Your task to perform on an android device: Clear all items from cart on bestbuy.com. Search for "usb-c to usb-a" on bestbuy.com, select the first entry, and add it to the cart. Image 0: 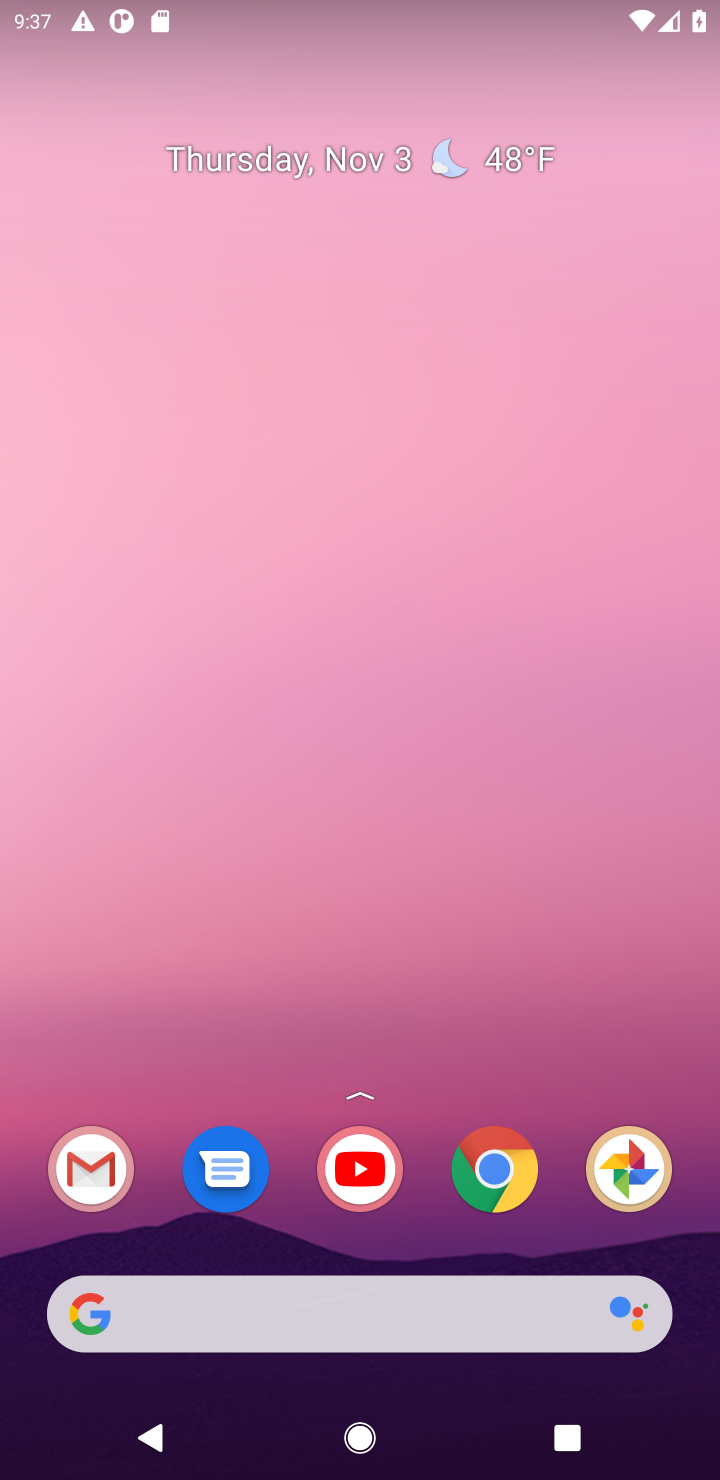
Step 0: drag from (452, 1195) to (655, 325)
Your task to perform on an android device: Clear all items from cart on bestbuy.com. Search for "usb-c to usb-a" on bestbuy.com, select the first entry, and add it to the cart. Image 1: 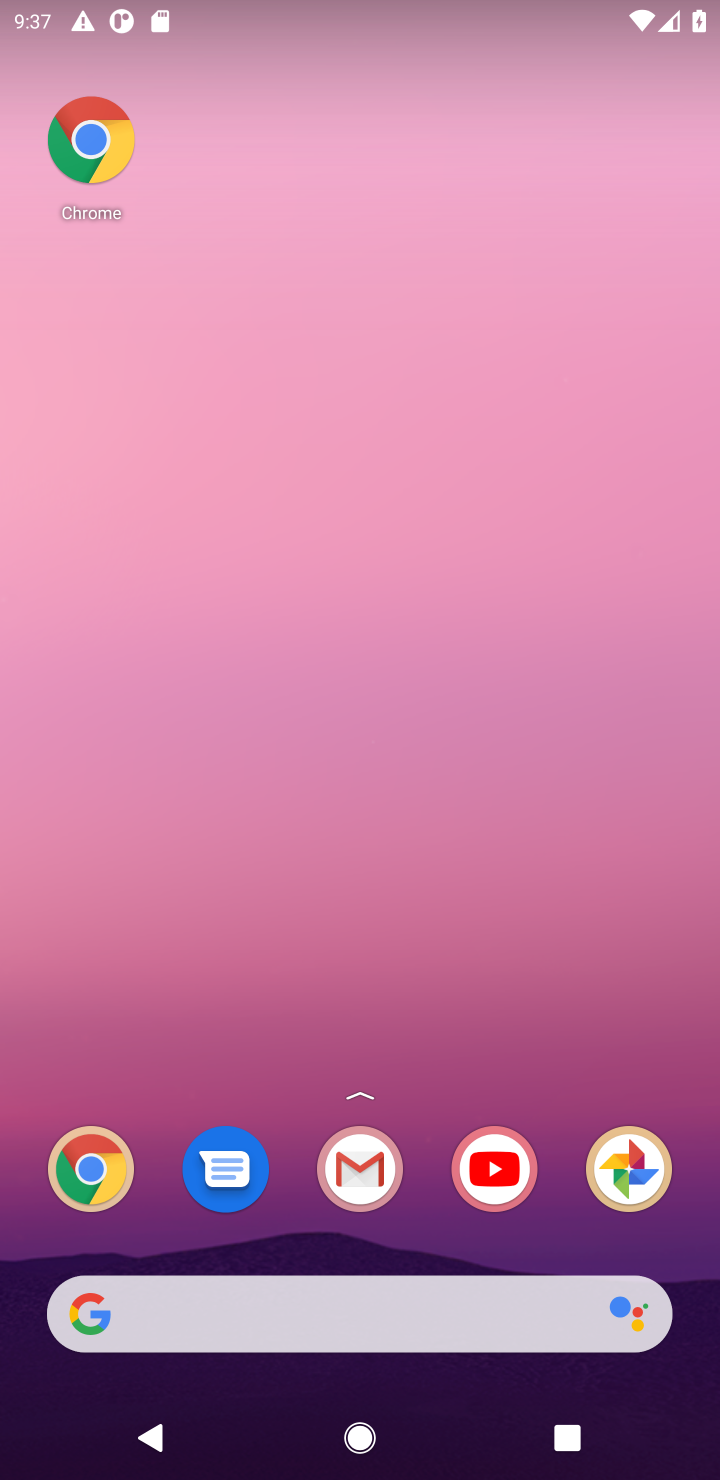
Step 1: drag from (434, 1259) to (552, 225)
Your task to perform on an android device: Clear all items from cart on bestbuy.com. Search for "usb-c to usb-a" on bestbuy.com, select the first entry, and add it to the cart. Image 2: 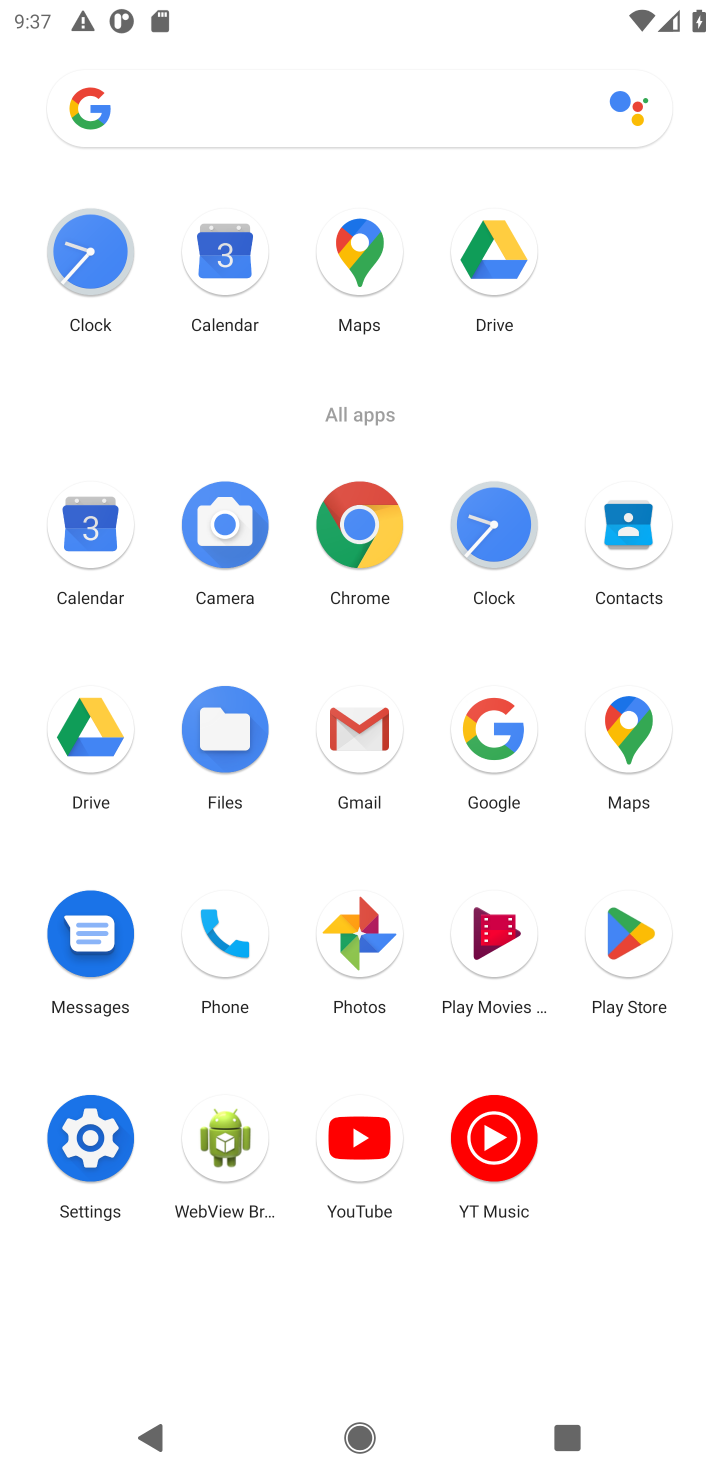
Step 2: click (357, 525)
Your task to perform on an android device: Clear all items from cart on bestbuy.com. Search for "usb-c to usb-a" on bestbuy.com, select the first entry, and add it to the cart. Image 3: 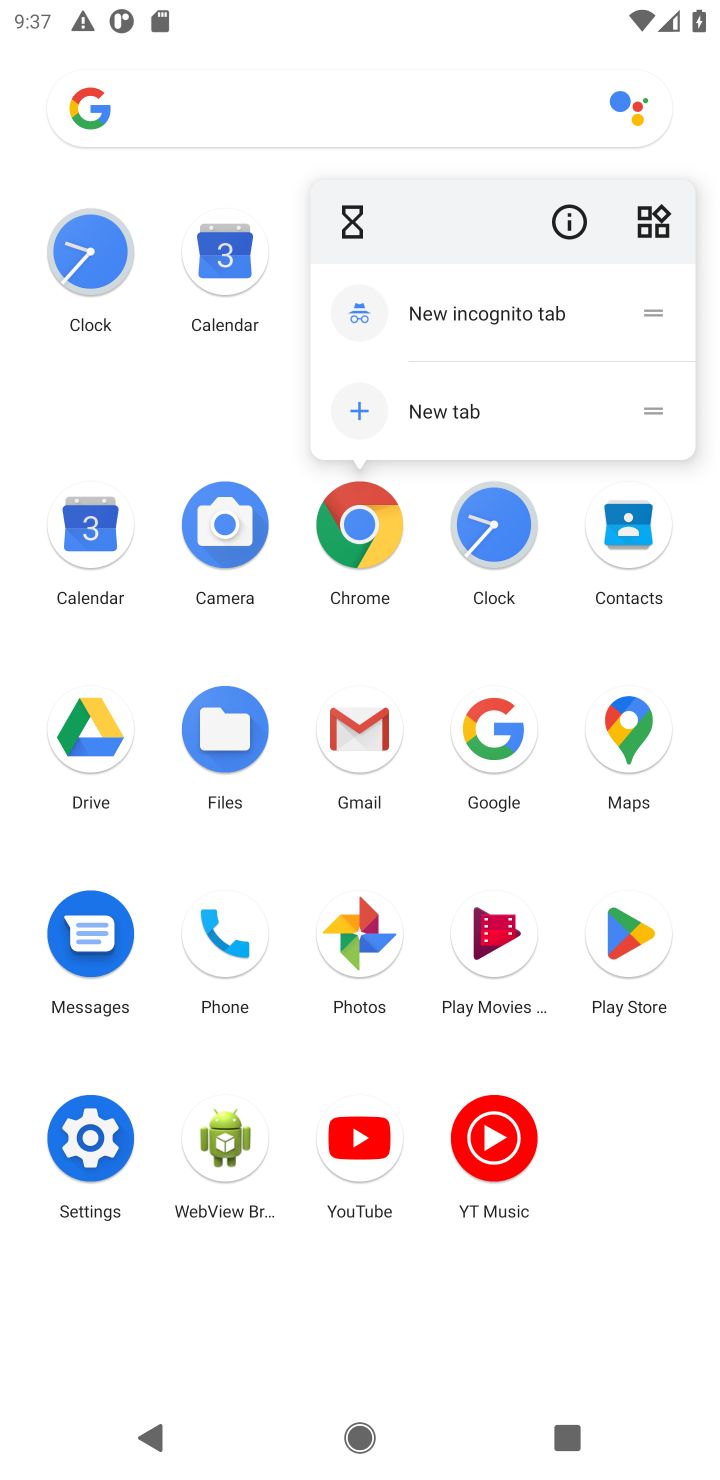
Step 3: click (357, 528)
Your task to perform on an android device: Clear all items from cart on bestbuy.com. Search for "usb-c to usb-a" on bestbuy.com, select the first entry, and add it to the cart. Image 4: 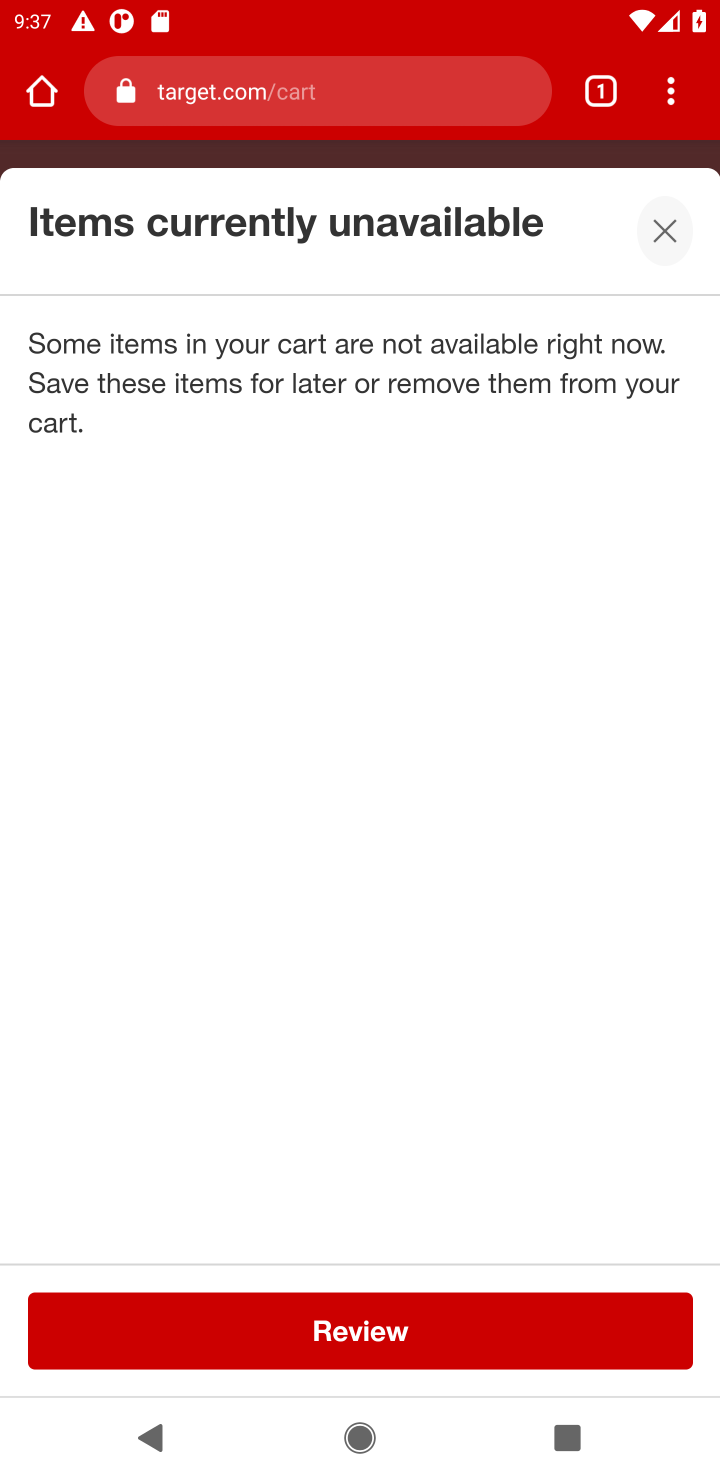
Step 4: click (350, 85)
Your task to perform on an android device: Clear all items from cart on bestbuy.com. Search for "usb-c to usb-a" on bestbuy.com, select the first entry, and add it to the cart. Image 5: 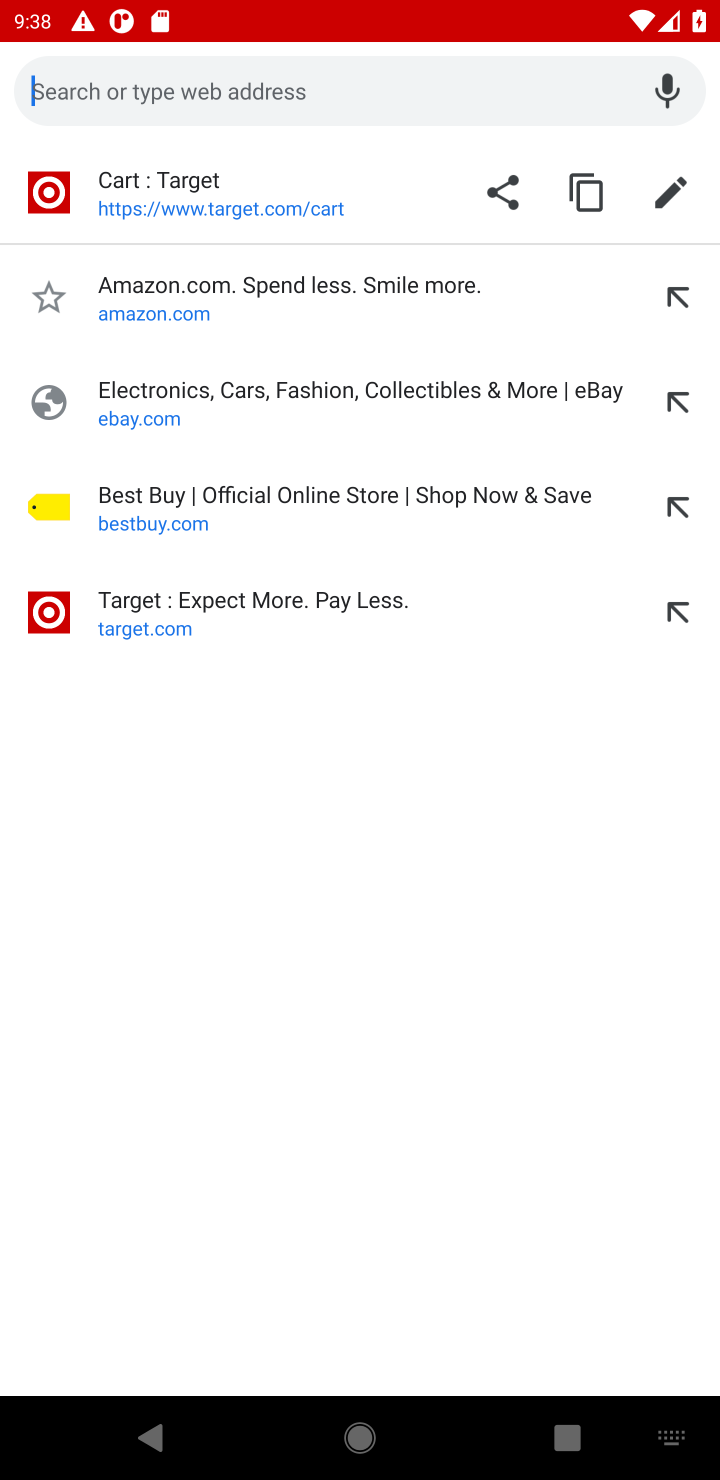
Step 5: type "bestbuy.com"
Your task to perform on an android device: Clear all items from cart on bestbuy.com. Search for "usb-c to usb-a" on bestbuy.com, select the first entry, and add it to the cart. Image 6: 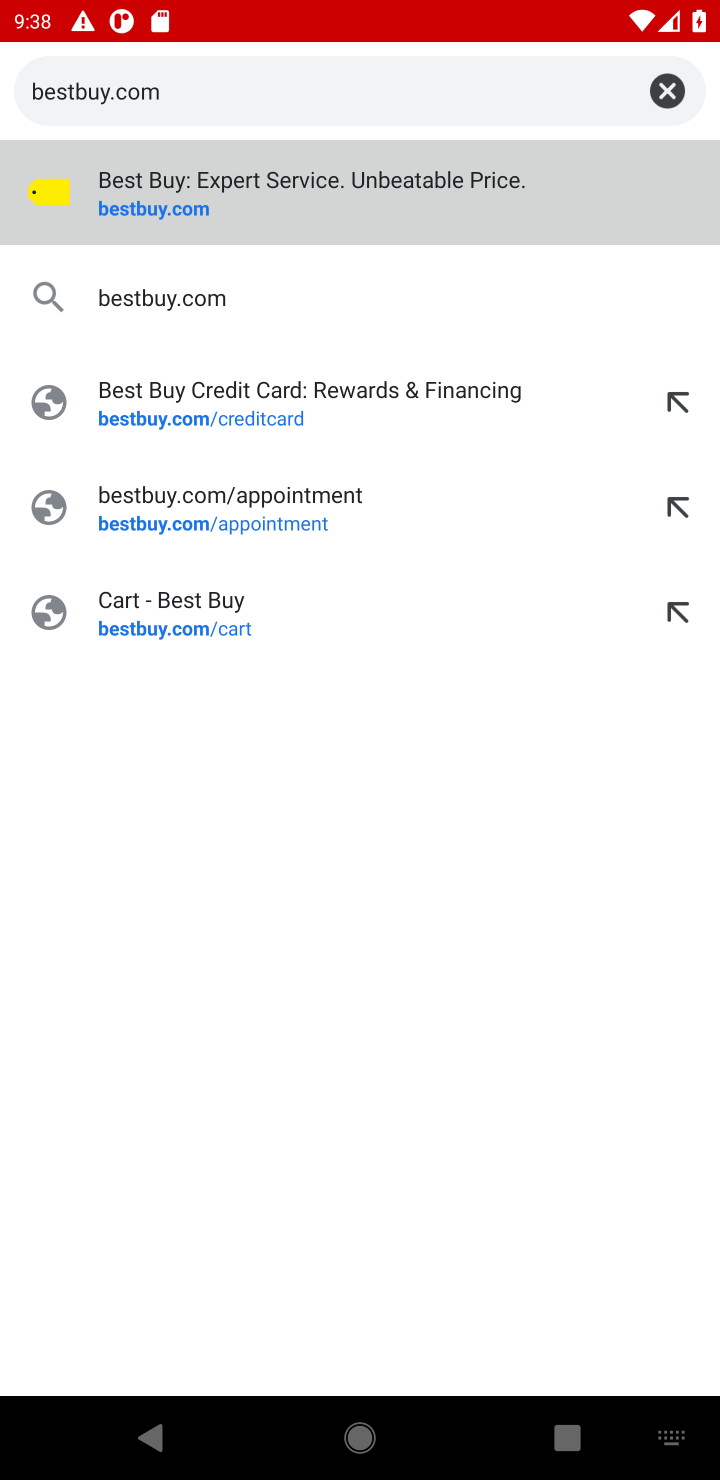
Step 6: press enter
Your task to perform on an android device: Clear all items from cart on bestbuy.com. Search for "usb-c to usb-a" on bestbuy.com, select the first entry, and add it to the cart. Image 7: 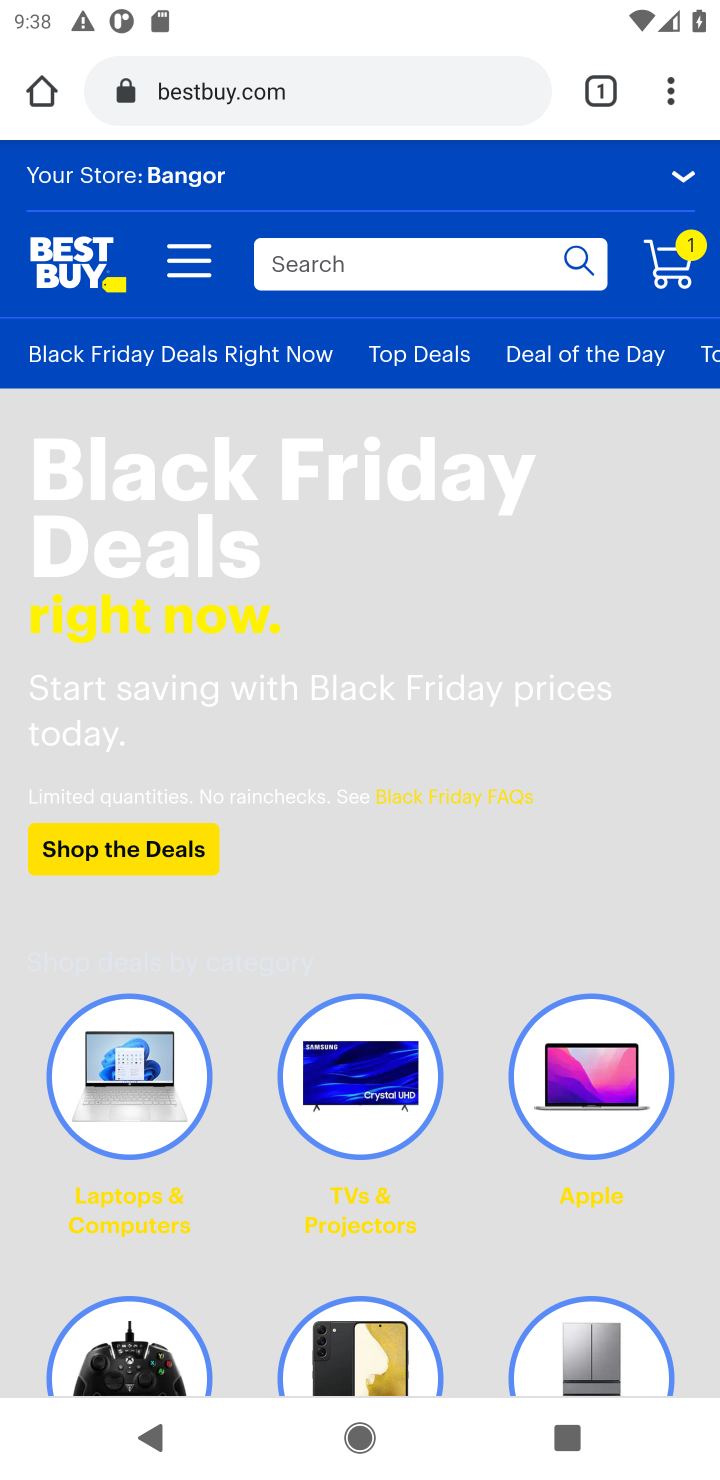
Step 7: click (696, 253)
Your task to perform on an android device: Clear all items from cart on bestbuy.com. Search for "usb-c to usb-a" on bestbuy.com, select the first entry, and add it to the cart. Image 8: 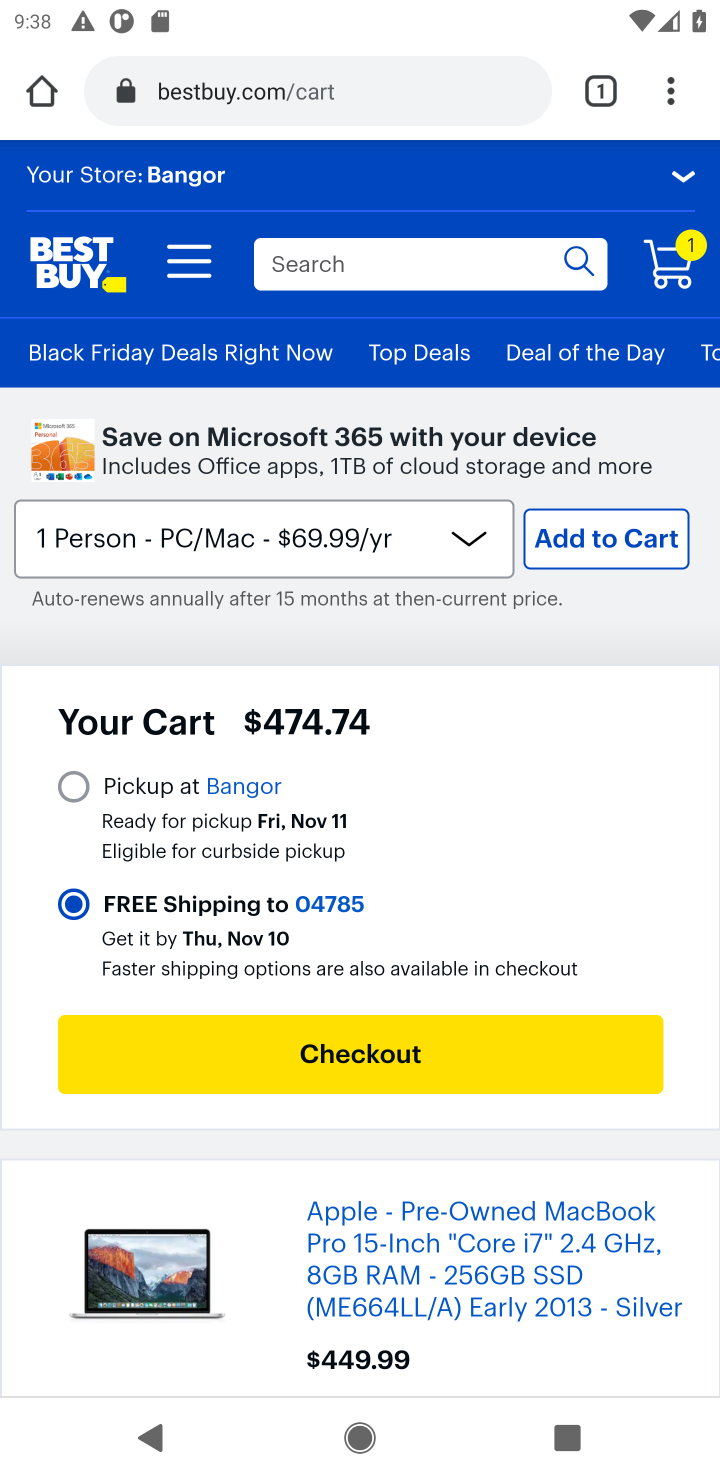
Step 8: drag from (466, 1263) to (384, 615)
Your task to perform on an android device: Clear all items from cart on bestbuy.com. Search for "usb-c to usb-a" on bestbuy.com, select the first entry, and add it to the cart. Image 9: 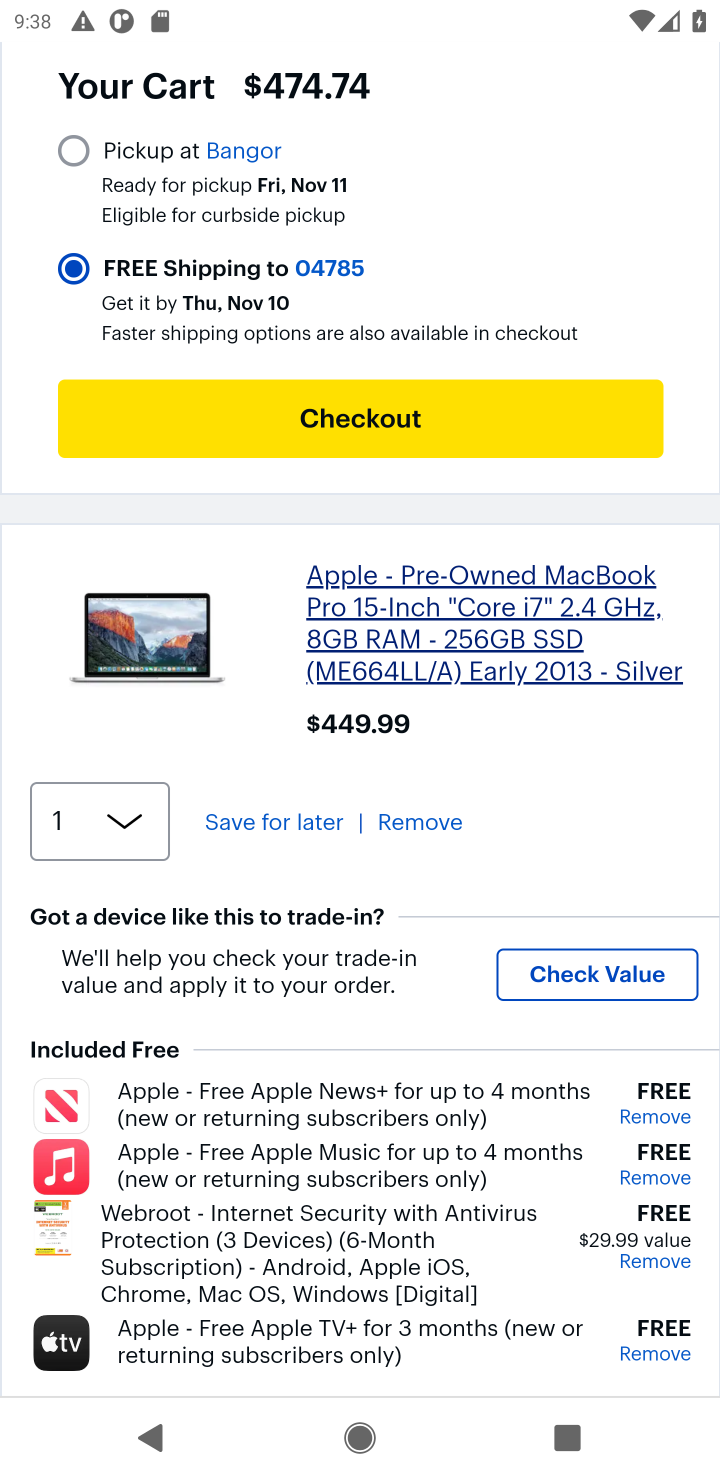
Step 9: click (390, 816)
Your task to perform on an android device: Clear all items from cart on bestbuy.com. Search for "usb-c to usb-a" on bestbuy.com, select the first entry, and add it to the cart. Image 10: 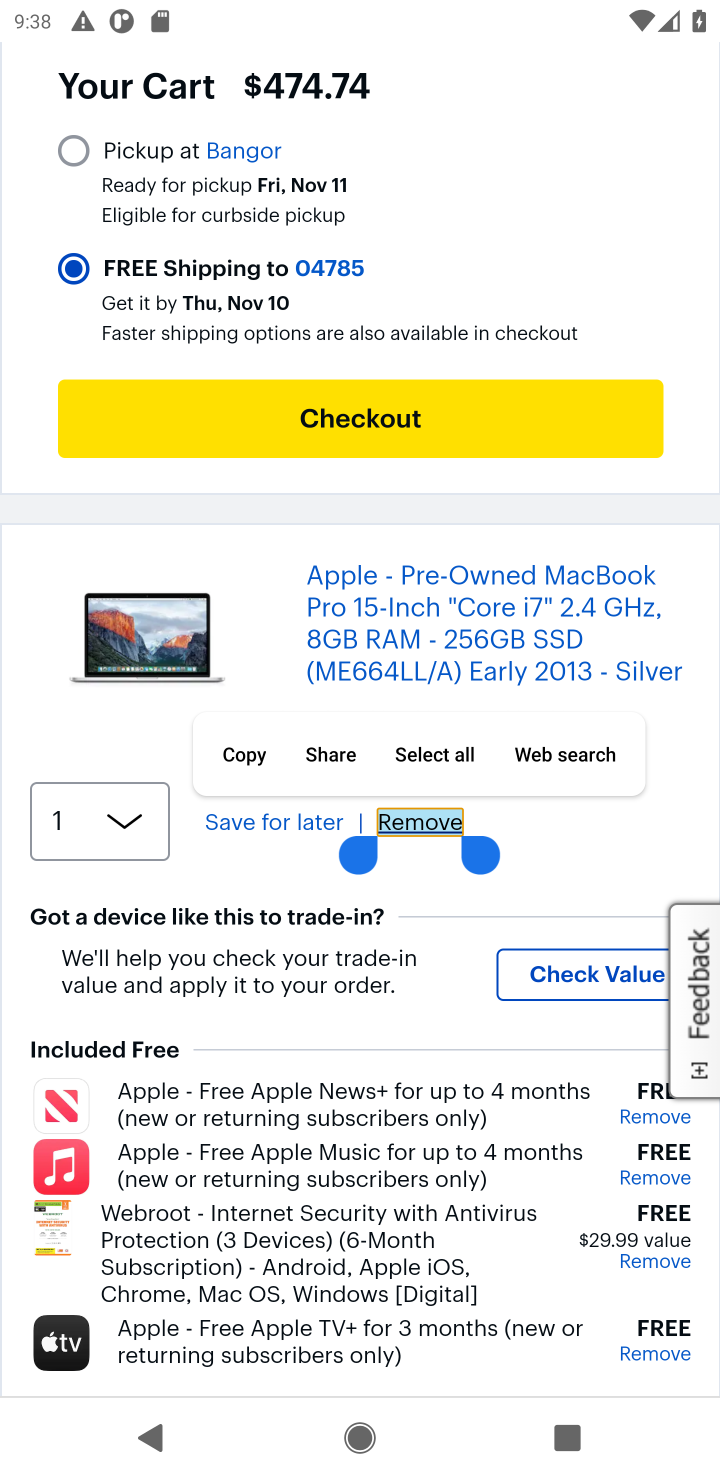
Step 10: click (419, 822)
Your task to perform on an android device: Clear all items from cart on bestbuy.com. Search for "usb-c to usb-a" on bestbuy.com, select the first entry, and add it to the cart. Image 11: 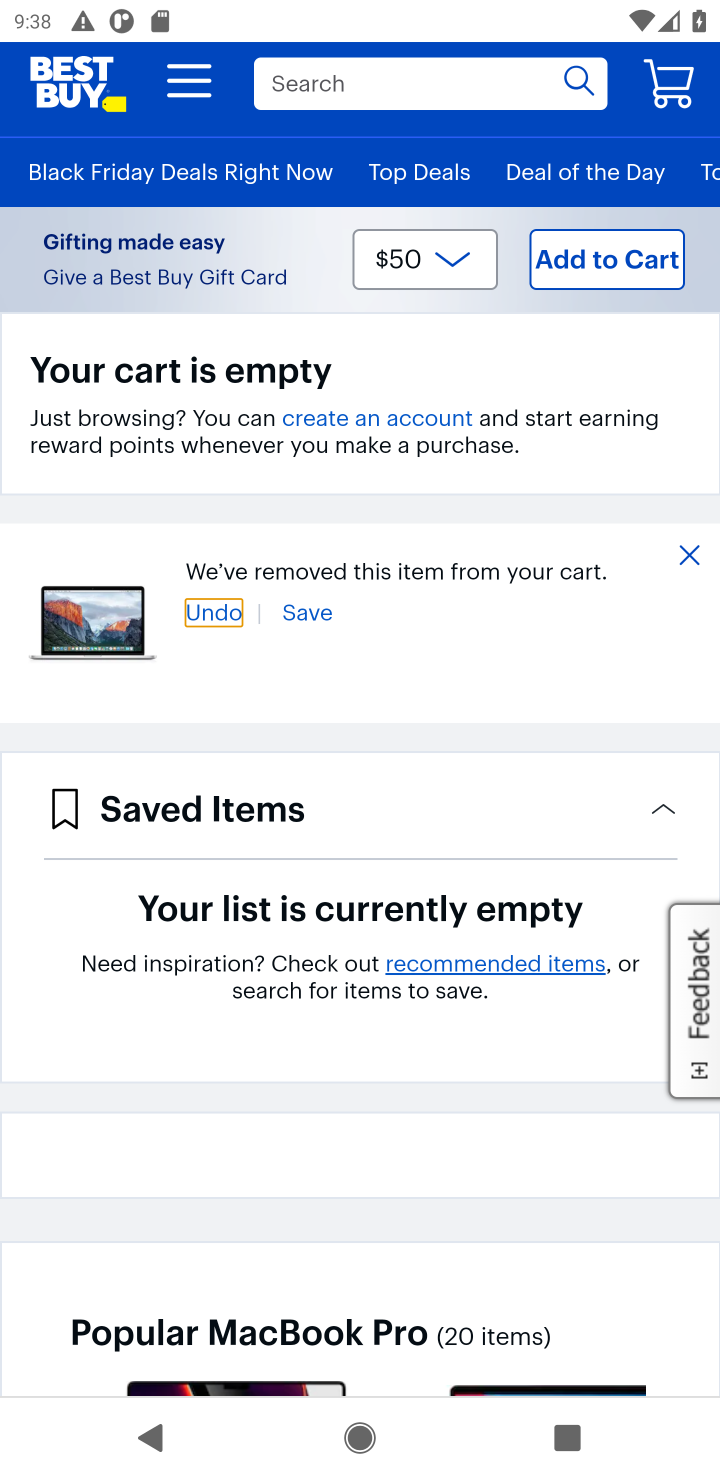
Step 11: click (400, 84)
Your task to perform on an android device: Clear all items from cart on bestbuy.com. Search for "usb-c to usb-a" on bestbuy.com, select the first entry, and add it to the cart. Image 12: 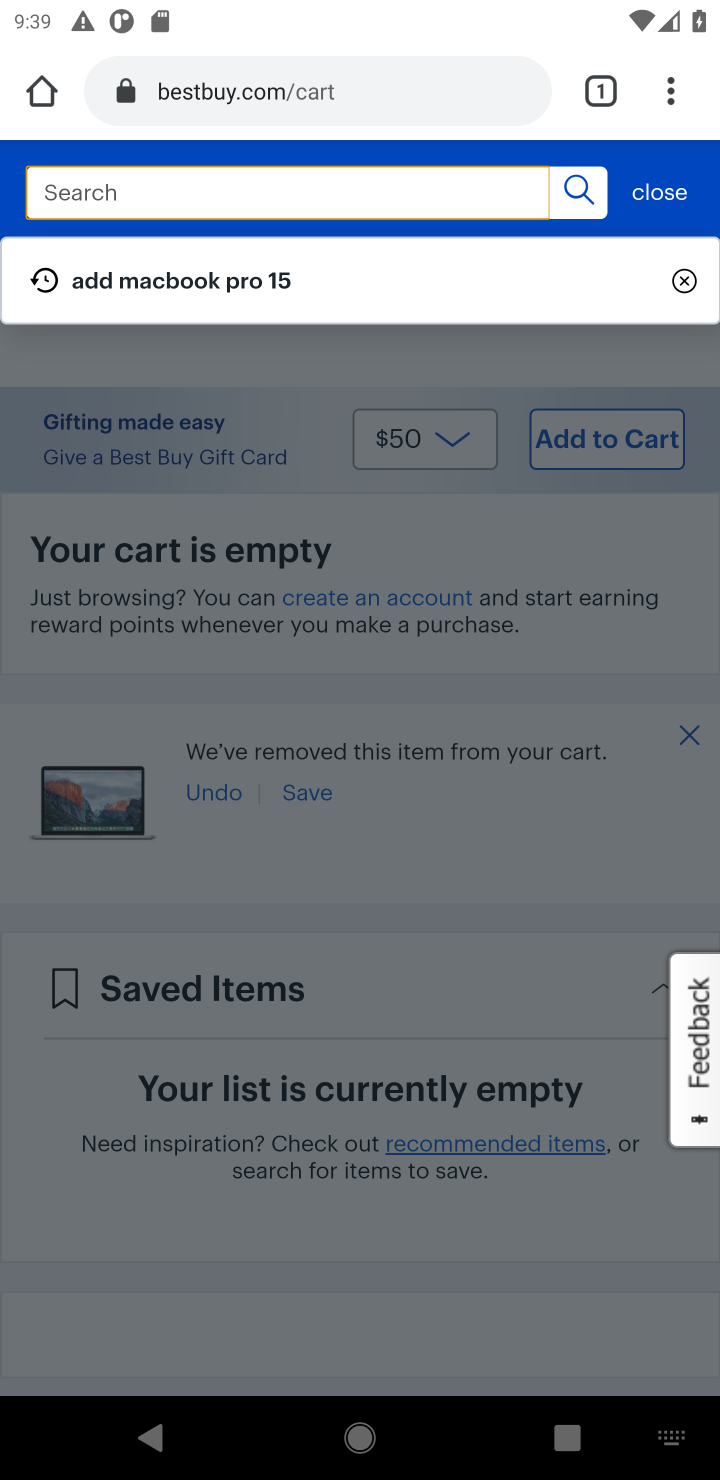
Step 12: type "usb-c to usb-a"
Your task to perform on an android device: Clear all items from cart on bestbuy.com. Search for "usb-c to usb-a" on bestbuy.com, select the first entry, and add it to the cart. Image 13: 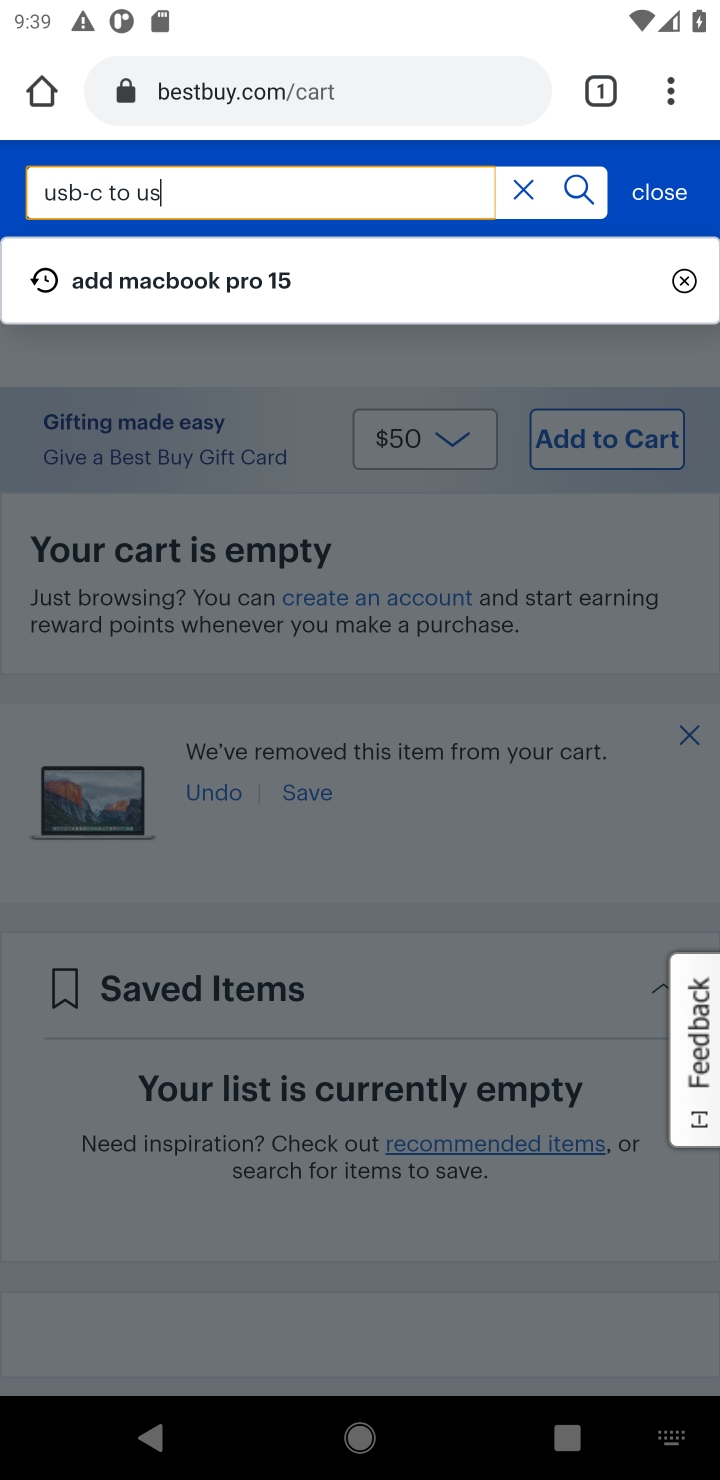
Step 13: press enter
Your task to perform on an android device: Clear all items from cart on bestbuy.com. Search for "usb-c to usb-a" on bestbuy.com, select the first entry, and add it to the cart. Image 14: 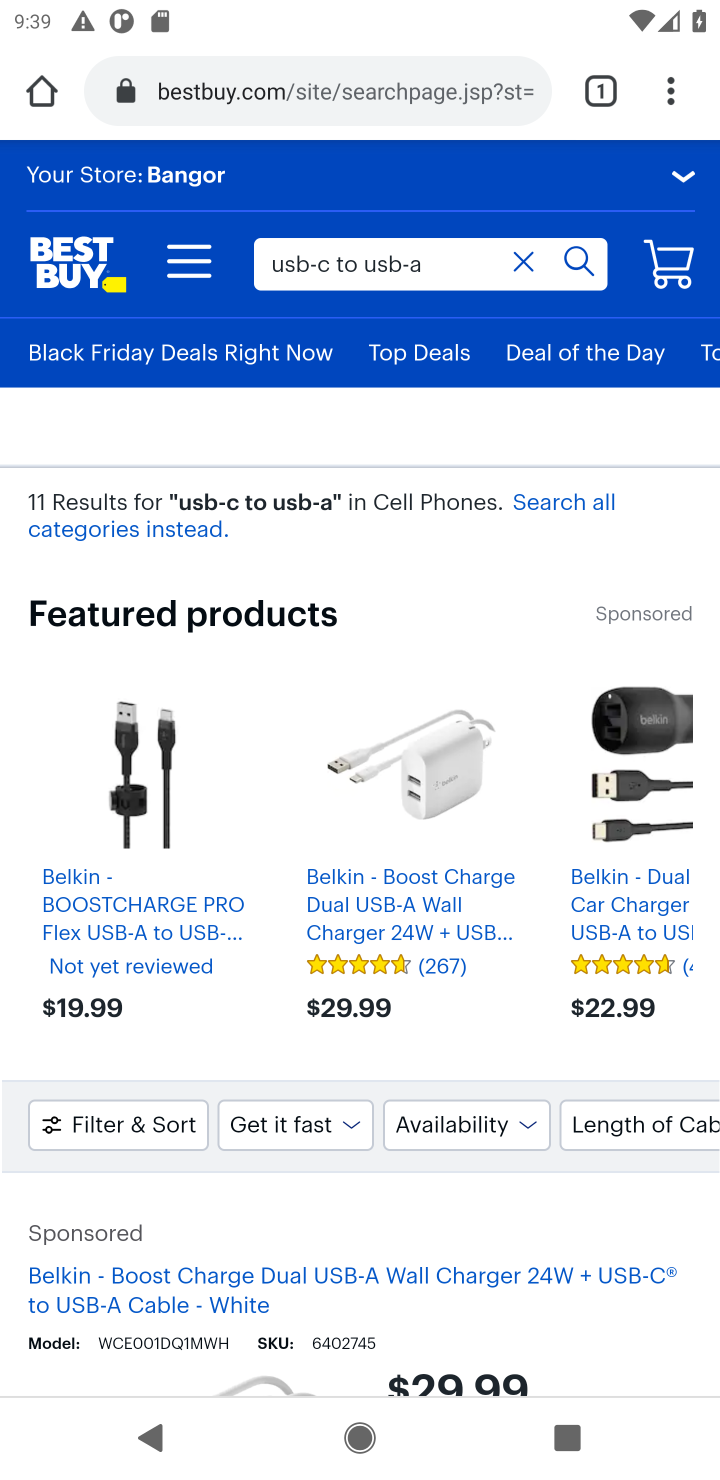
Step 14: drag from (421, 1122) to (368, 561)
Your task to perform on an android device: Clear all items from cart on bestbuy.com. Search for "usb-c to usb-a" on bestbuy.com, select the first entry, and add it to the cart. Image 15: 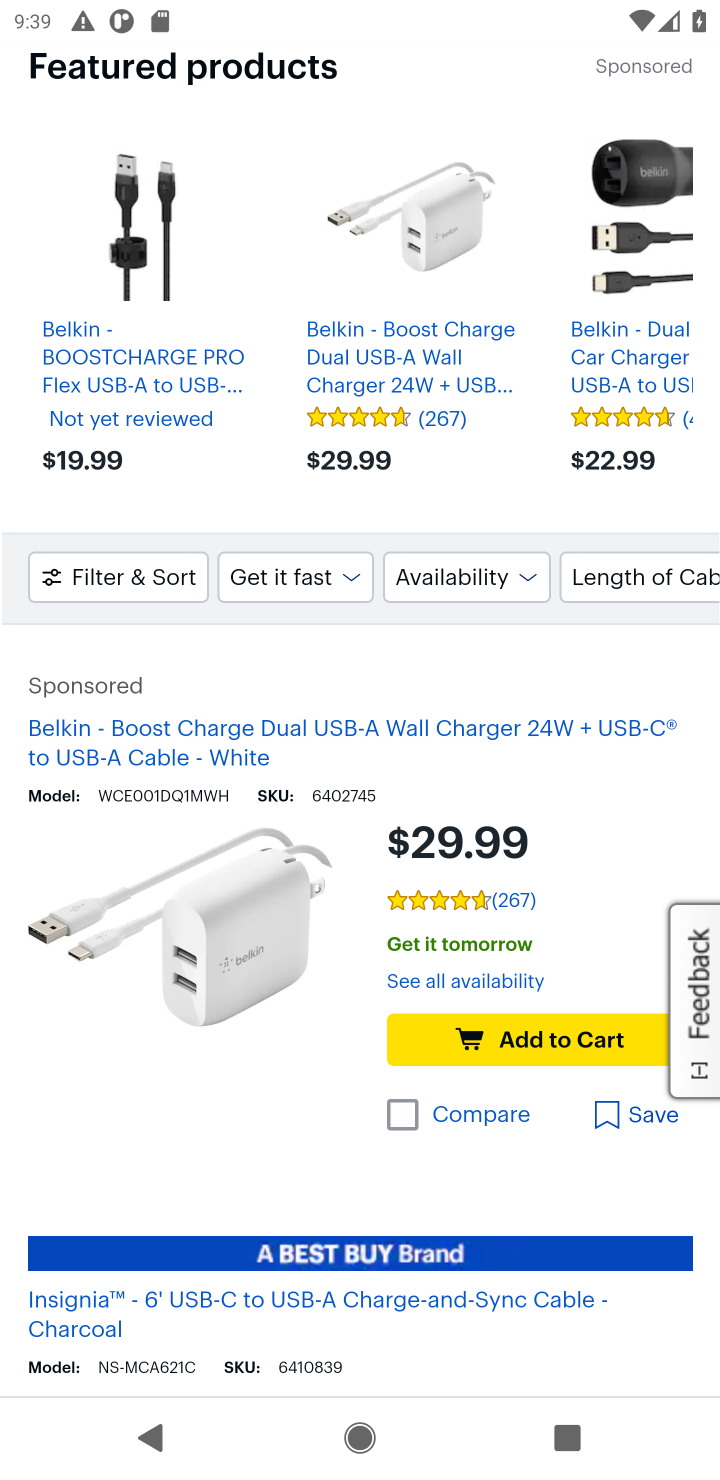
Step 15: drag from (392, 677) to (406, 584)
Your task to perform on an android device: Clear all items from cart on bestbuy.com. Search for "usb-c to usb-a" on bestbuy.com, select the first entry, and add it to the cart. Image 16: 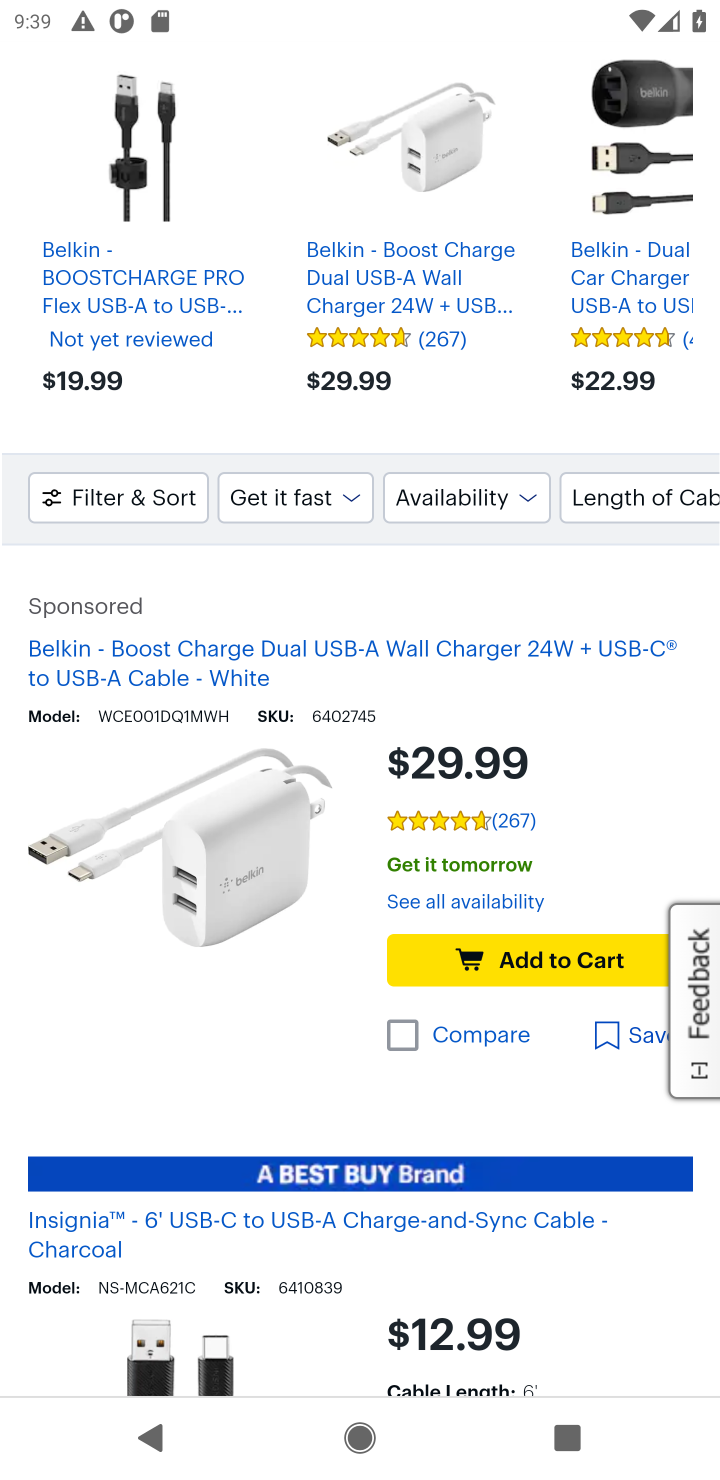
Step 16: drag from (376, 1044) to (409, 535)
Your task to perform on an android device: Clear all items from cart on bestbuy.com. Search for "usb-c to usb-a" on bestbuy.com, select the first entry, and add it to the cart. Image 17: 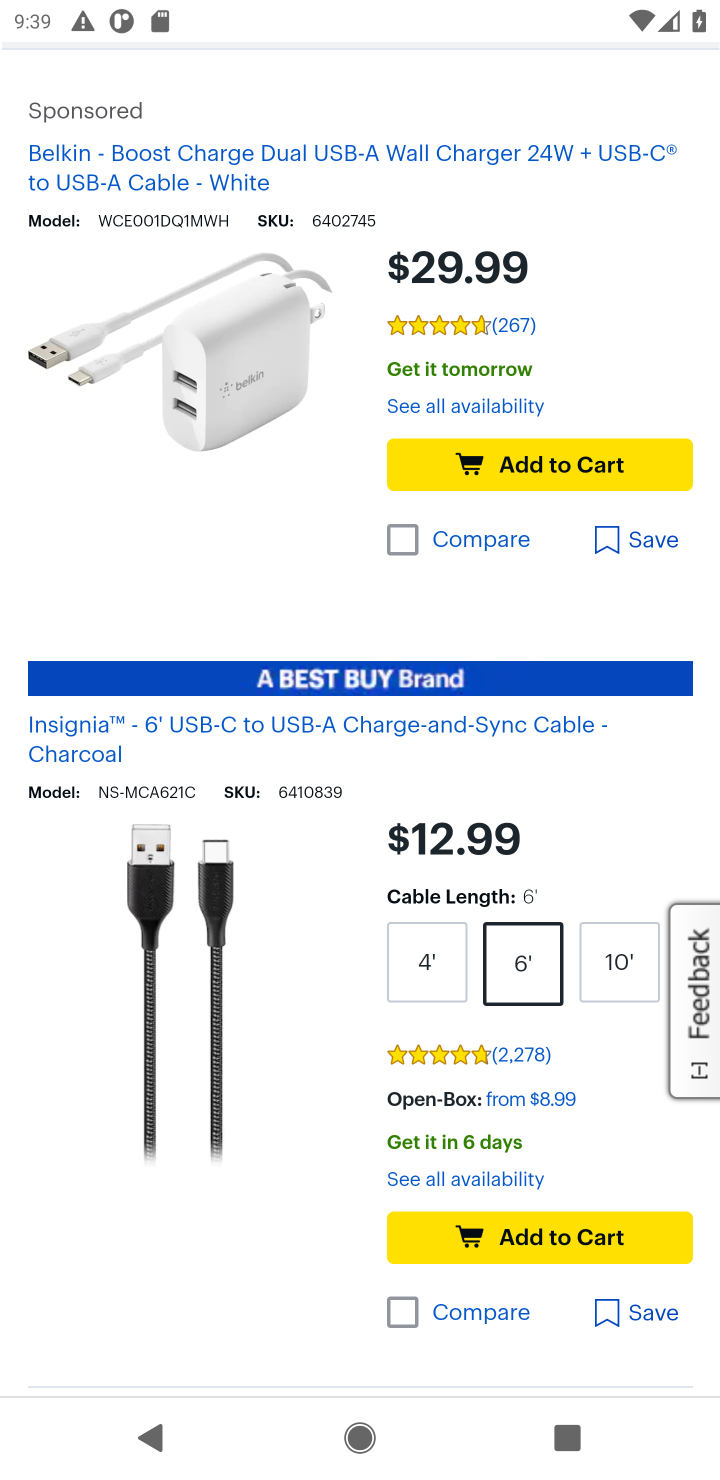
Step 17: drag from (564, 463) to (434, 449)
Your task to perform on an android device: Clear all items from cart on bestbuy.com. Search for "usb-c to usb-a" on bestbuy.com, select the first entry, and add it to the cart. Image 18: 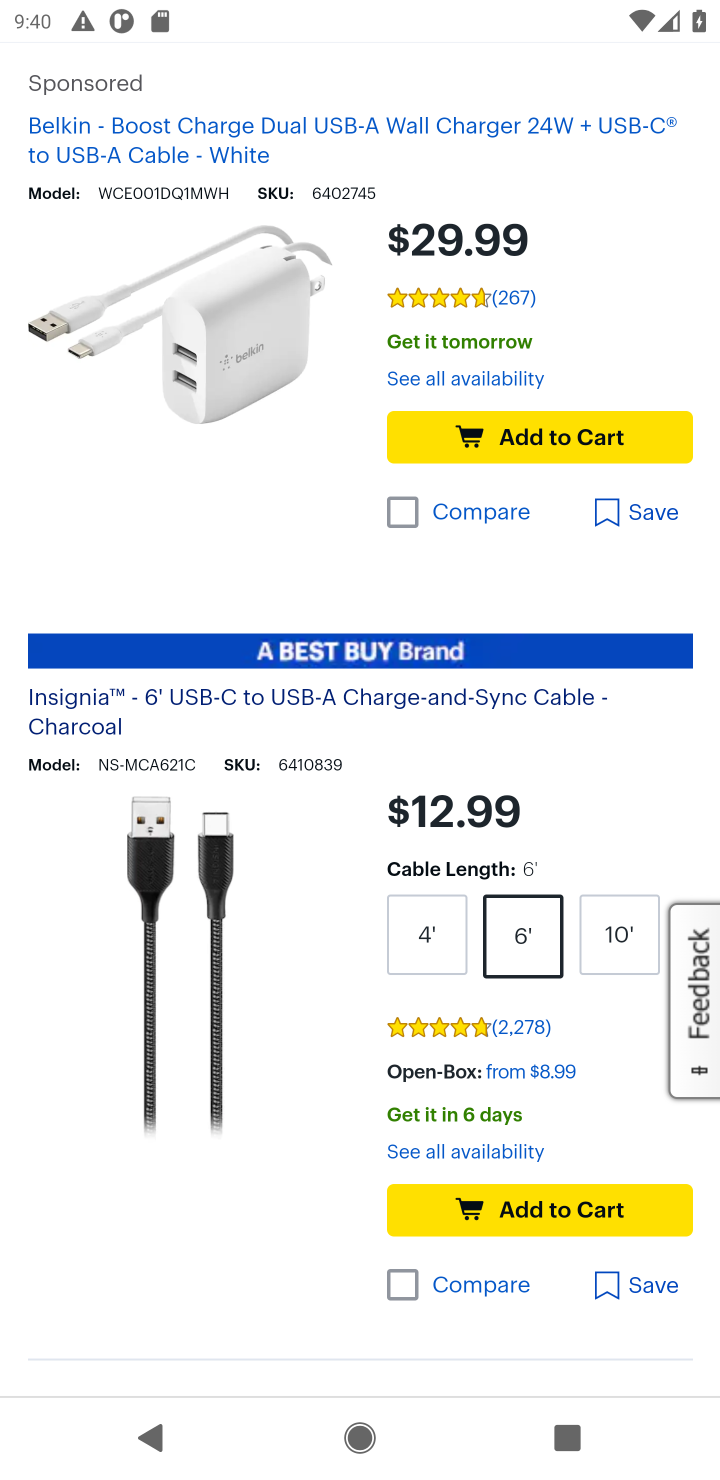
Step 18: click (522, 1183)
Your task to perform on an android device: Clear all items from cart on bestbuy.com. Search for "usb-c to usb-a" on bestbuy.com, select the first entry, and add it to the cart. Image 19: 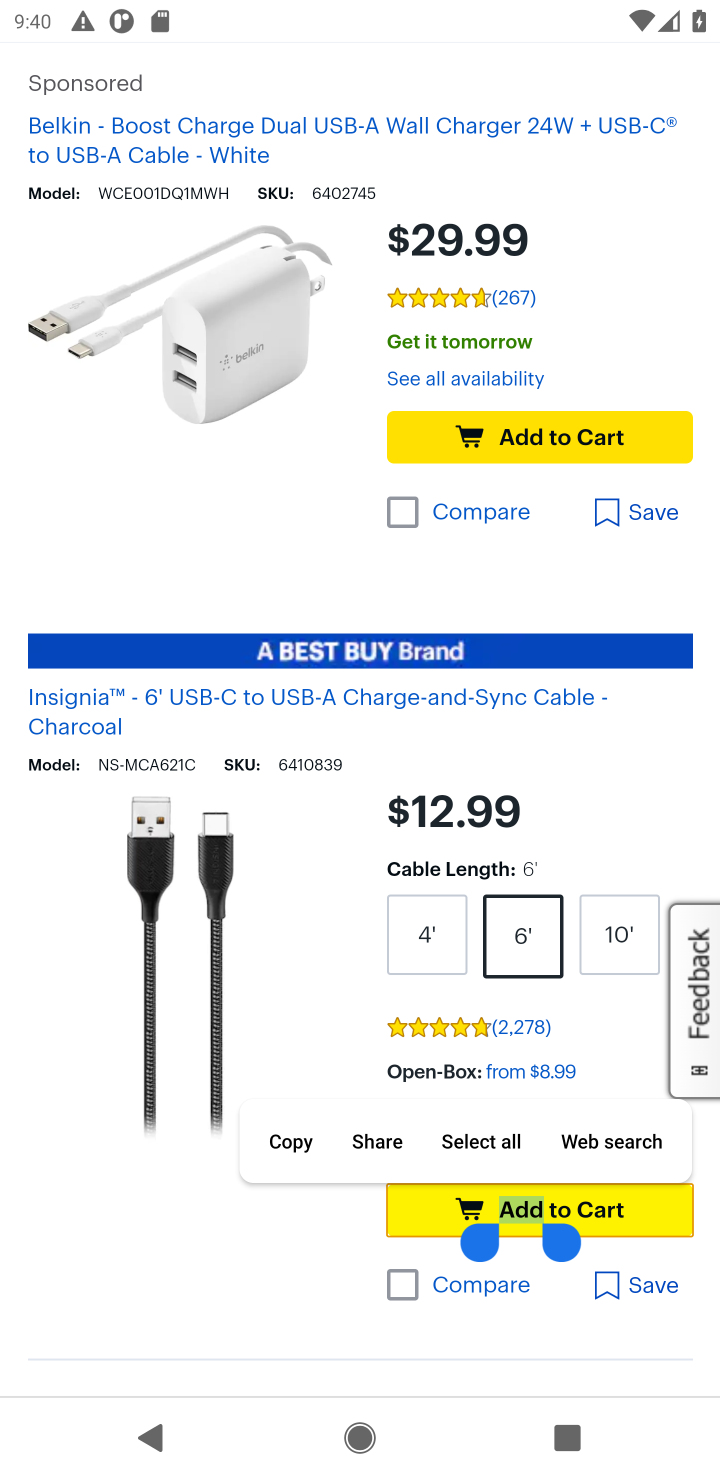
Step 19: click (575, 1225)
Your task to perform on an android device: Clear all items from cart on bestbuy.com. Search for "usb-c to usb-a" on bestbuy.com, select the first entry, and add it to the cart. Image 20: 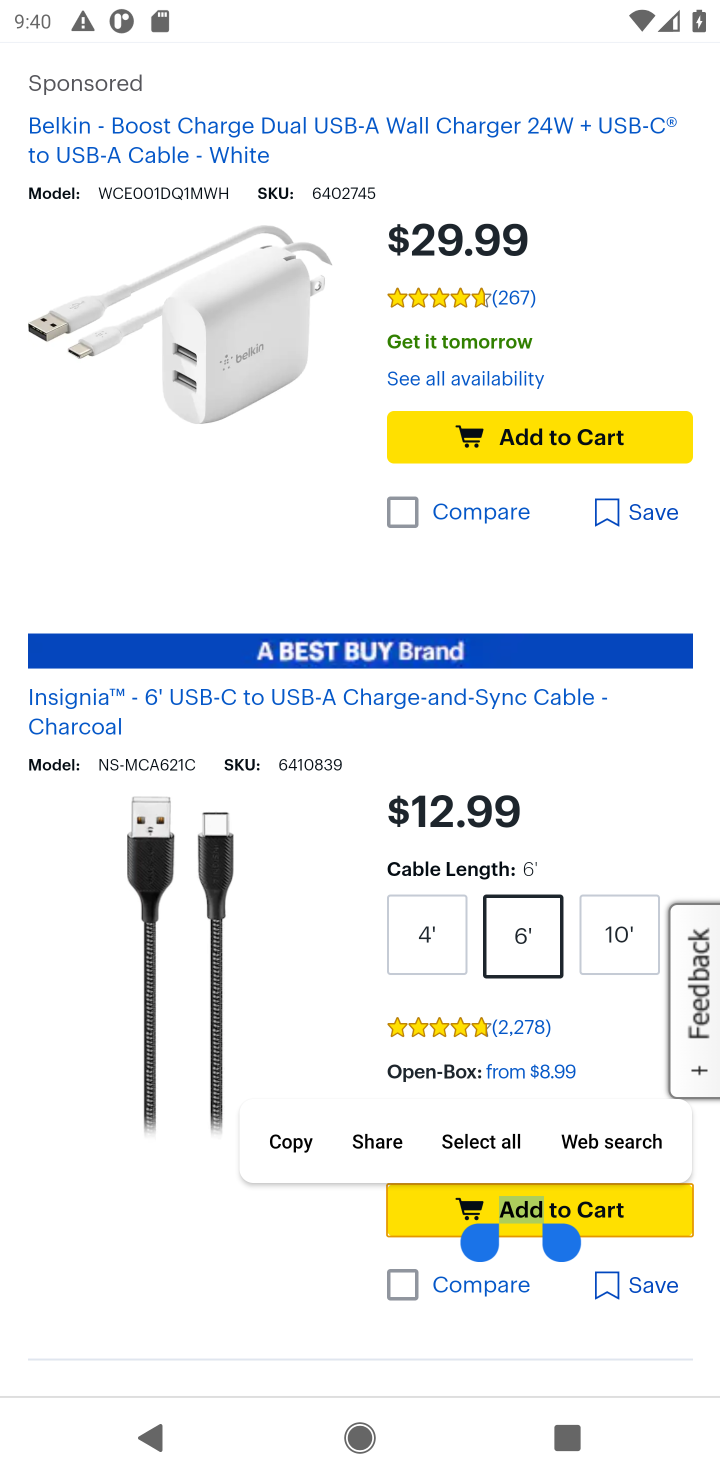
Step 20: click (62, 1090)
Your task to perform on an android device: Clear all items from cart on bestbuy.com. Search for "usb-c to usb-a" on bestbuy.com, select the first entry, and add it to the cart. Image 21: 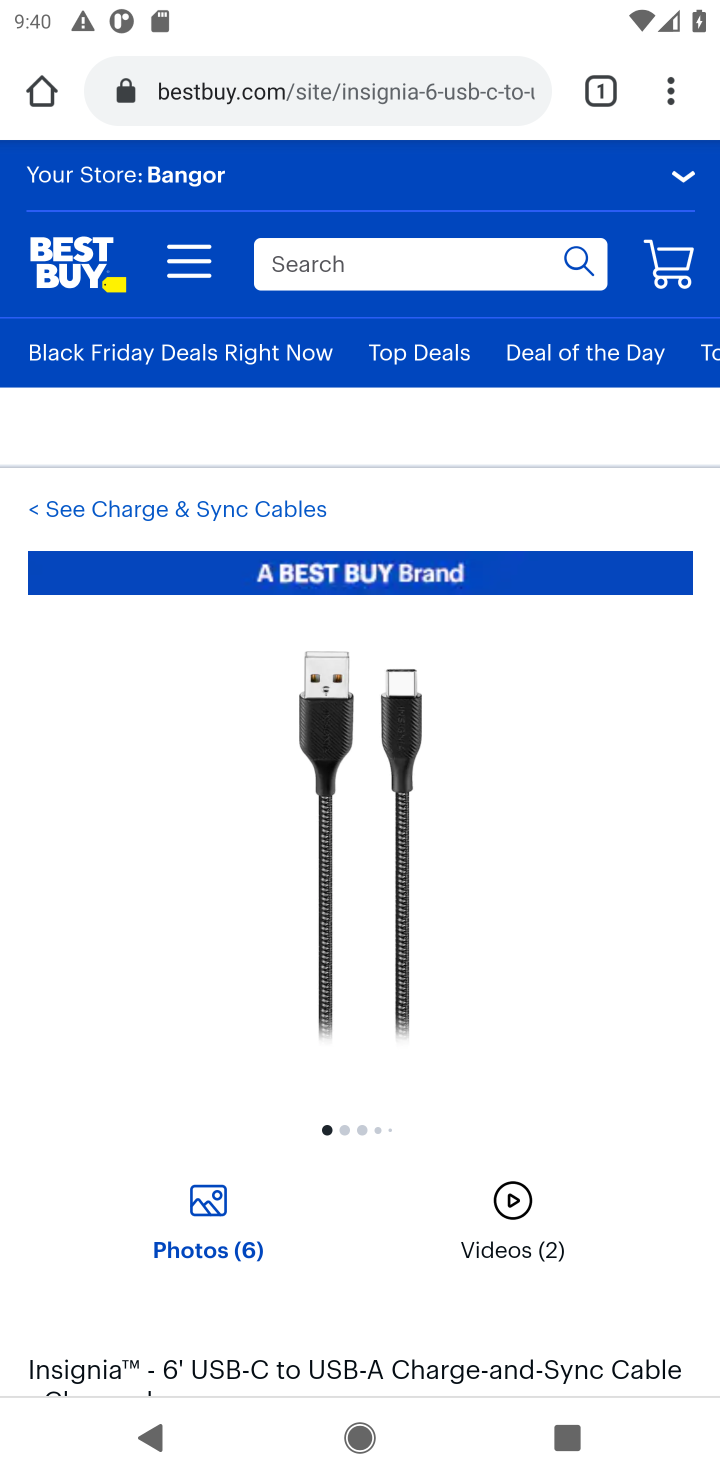
Step 21: drag from (375, 1215) to (380, 689)
Your task to perform on an android device: Clear all items from cart on bestbuy.com. Search for "usb-c to usb-a" on bestbuy.com, select the first entry, and add it to the cart. Image 22: 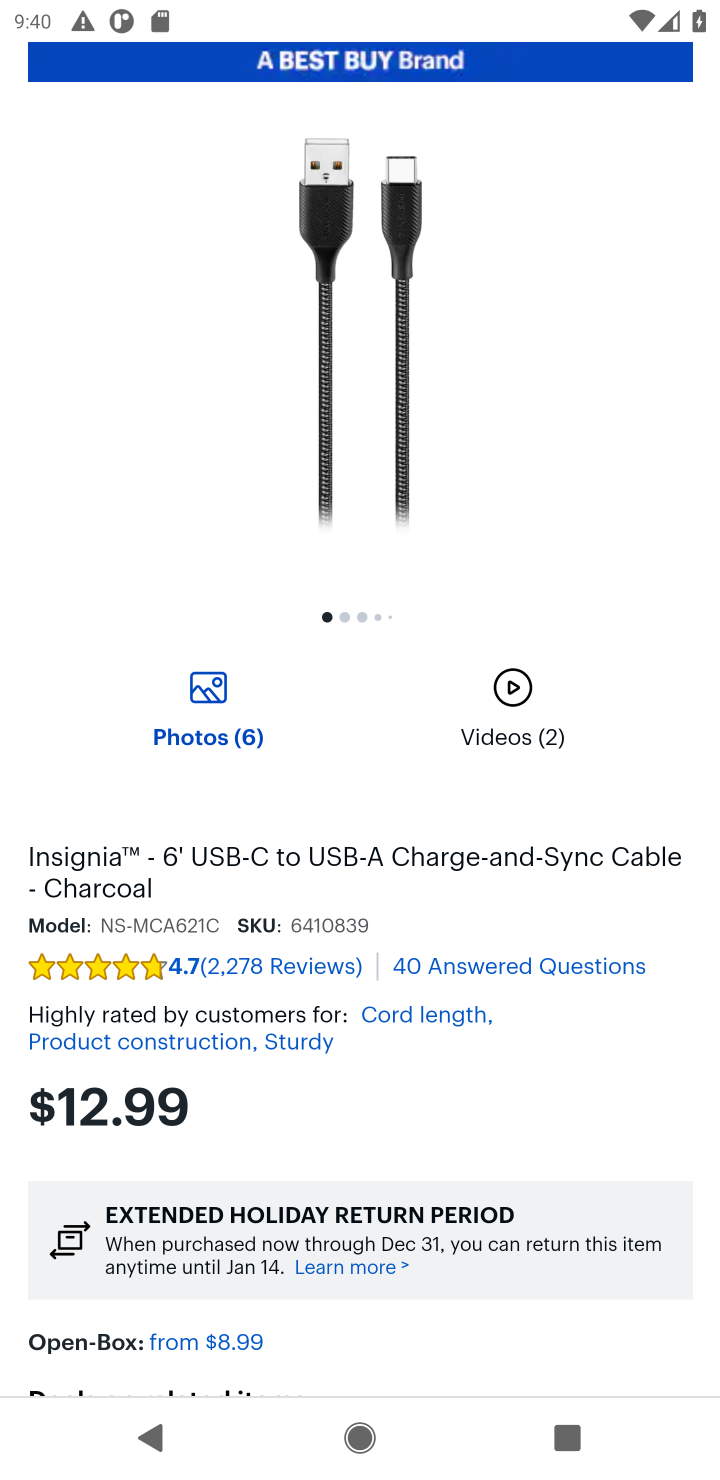
Step 22: drag from (401, 958) to (426, 457)
Your task to perform on an android device: Clear all items from cart on bestbuy.com. Search for "usb-c to usb-a" on bestbuy.com, select the first entry, and add it to the cart. Image 23: 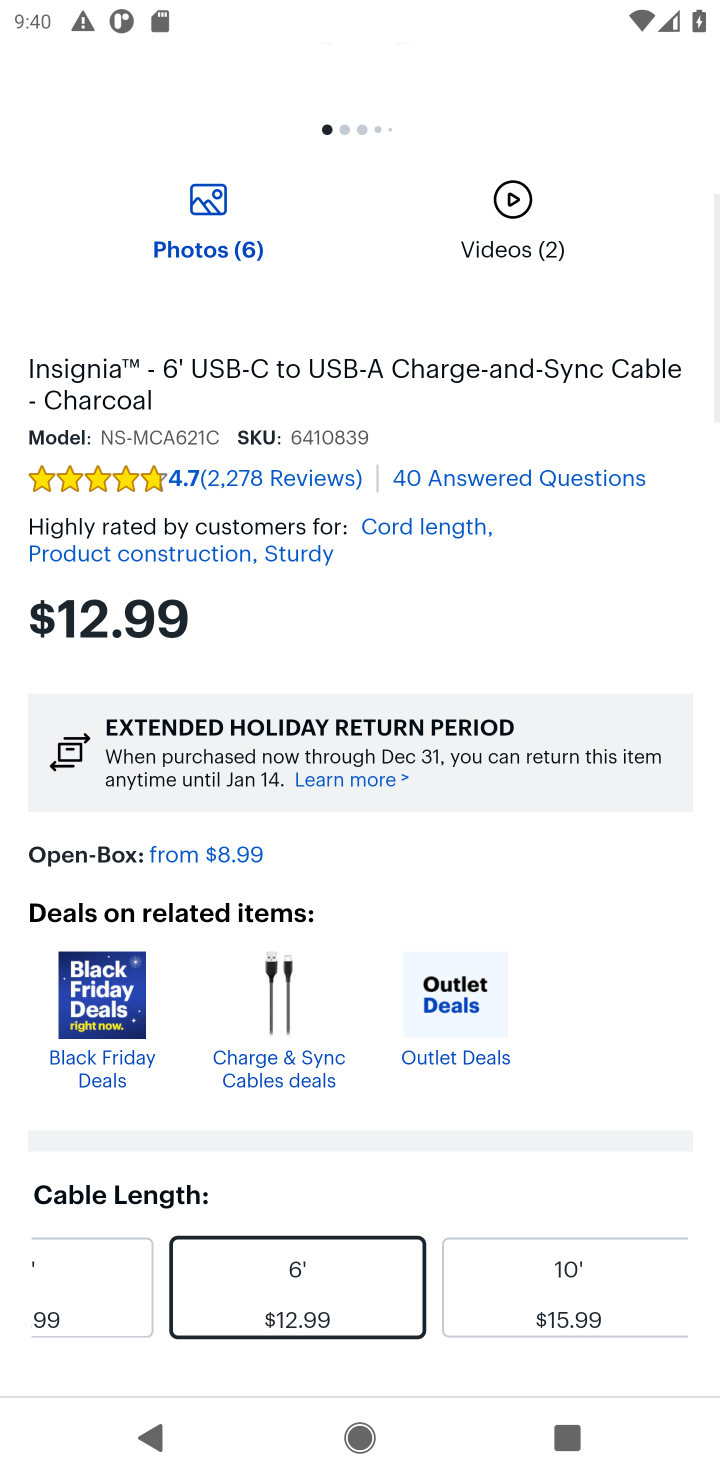
Step 23: drag from (446, 1090) to (461, 425)
Your task to perform on an android device: Clear all items from cart on bestbuy.com. Search for "usb-c to usb-a" on bestbuy.com, select the first entry, and add it to the cart. Image 24: 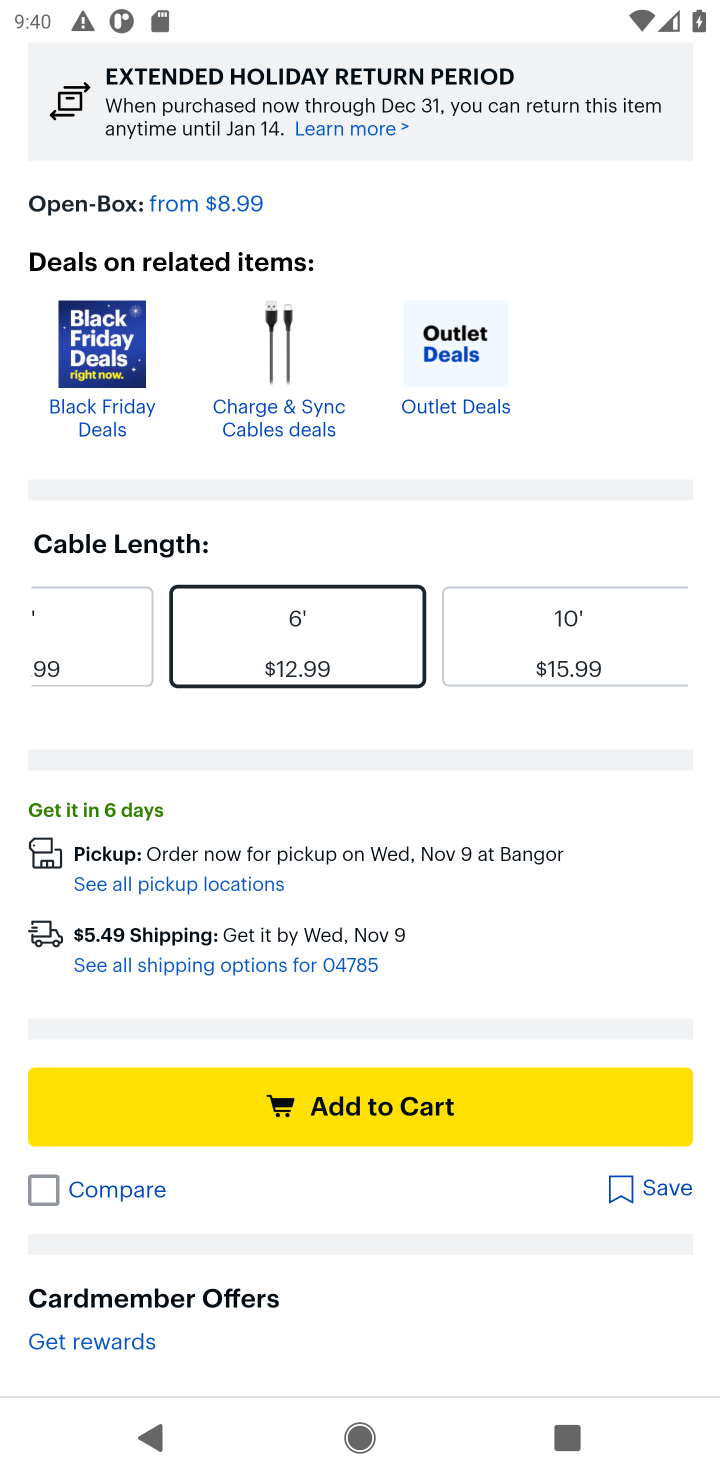
Step 24: click (410, 1093)
Your task to perform on an android device: Clear all items from cart on bestbuy.com. Search for "usb-c to usb-a" on bestbuy.com, select the first entry, and add it to the cart. Image 25: 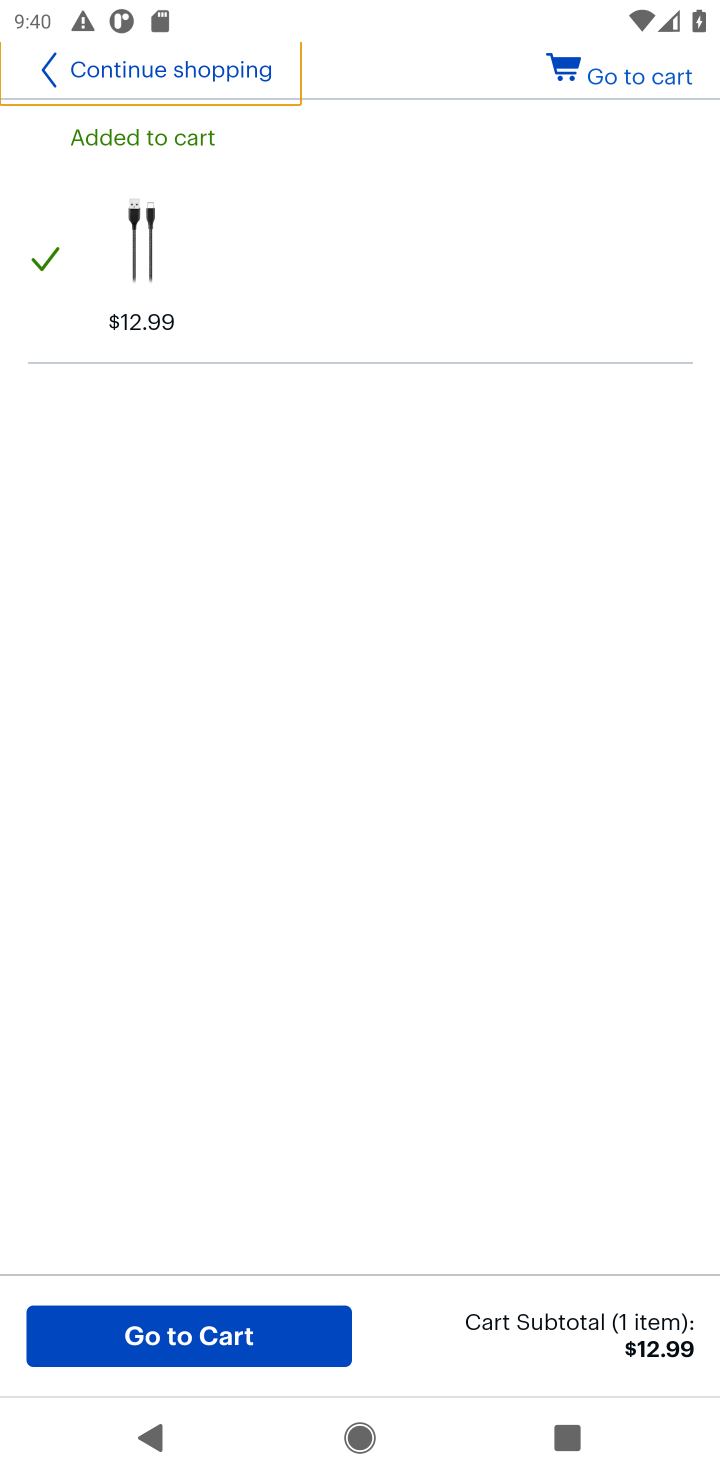
Step 25: click (259, 1344)
Your task to perform on an android device: Clear all items from cart on bestbuy.com. Search for "usb-c to usb-a" on bestbuy.com, select the first entry, and add it to the cart. Image 26: 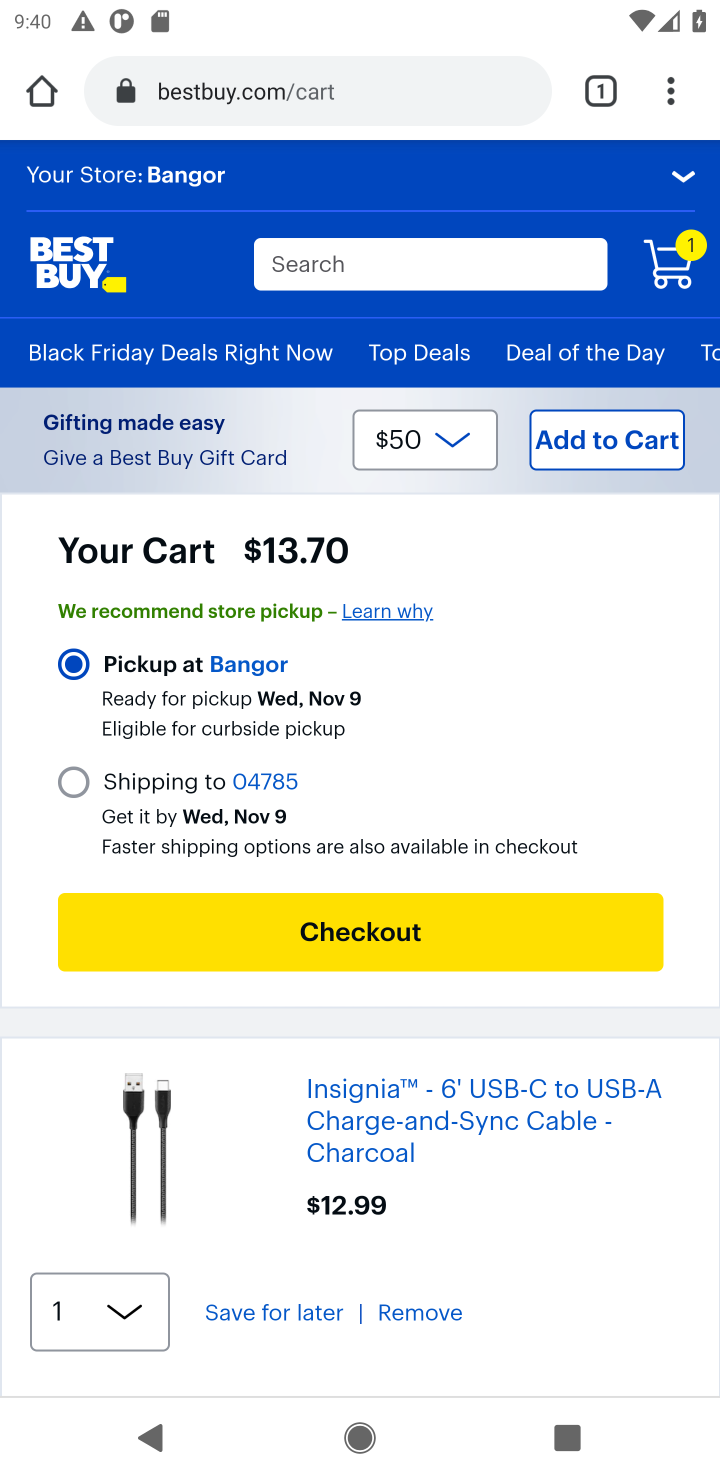
Step 26: click (391, 935)
Your task to perform on an android device: Clear all items from cart on bestbuy.com. Search for "usb-c to usb-a" on bestbuy.com, select the first entry, and add it to the cart. Image 27: 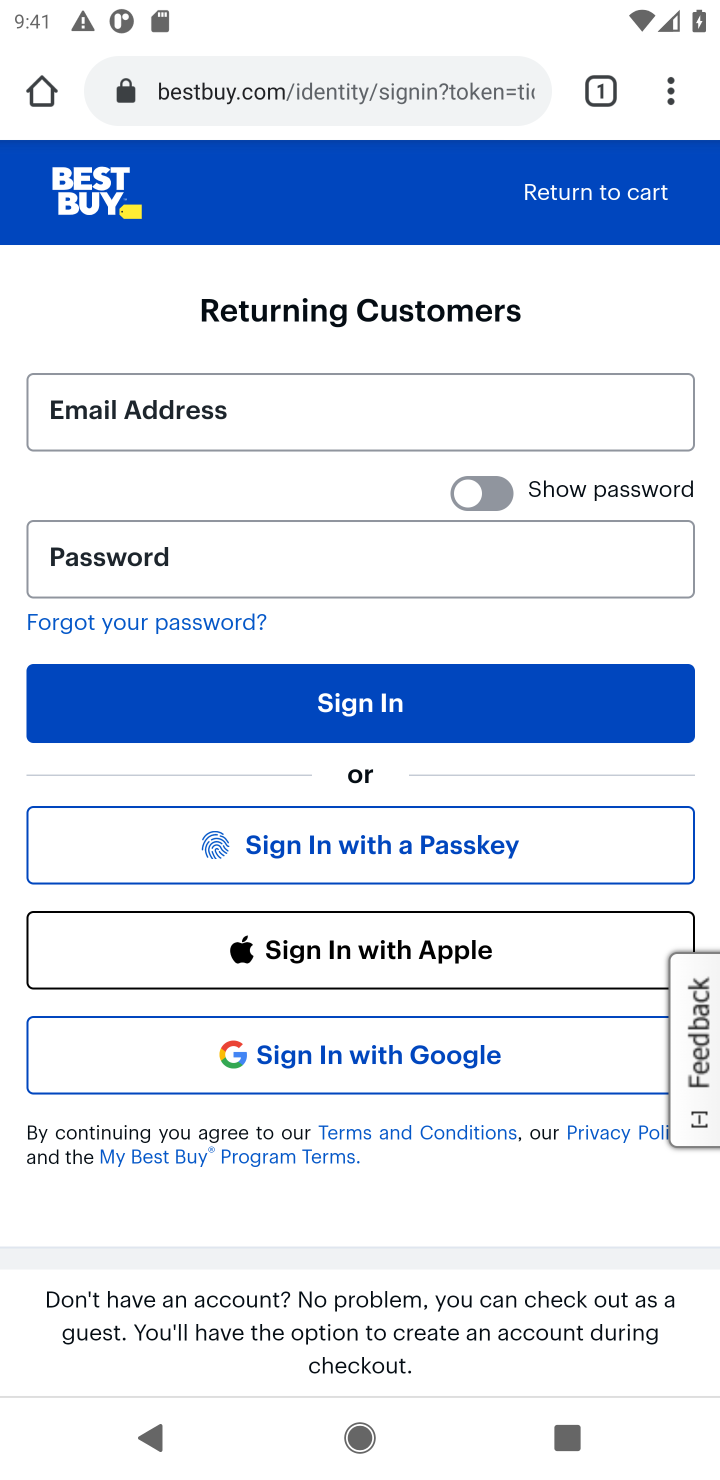
Step 27: task complete